Your task to perform on an android device: Open settings Image 0: 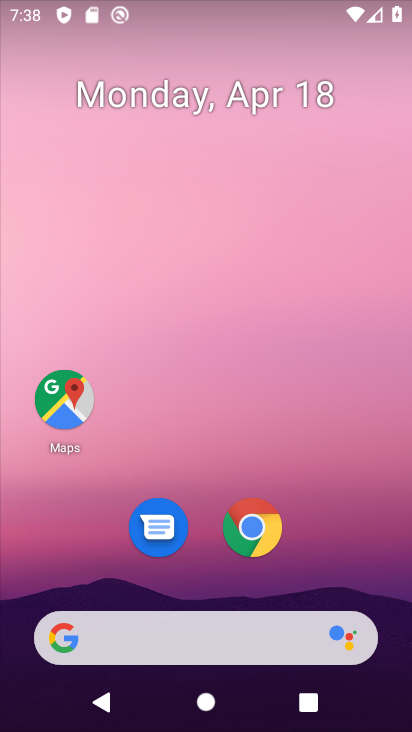
Step 0: drag from (364, 544) to (352, 119)
Your task to perform on an android device: Open settings Image 1: 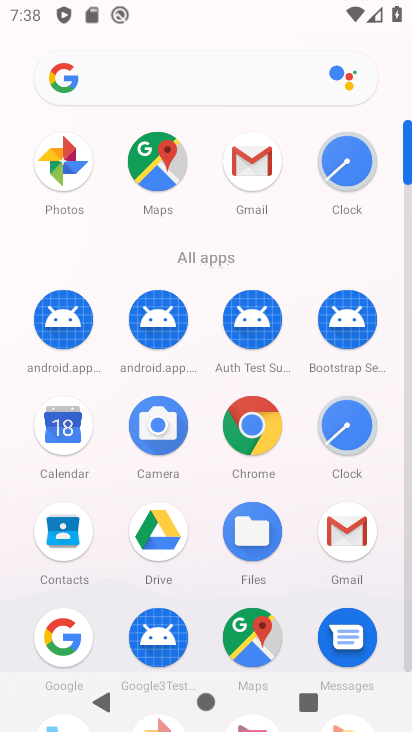
Step 1: drag from (389, 483) to (384, 133)
Your task to perform on an android device: Open settings Image 2: 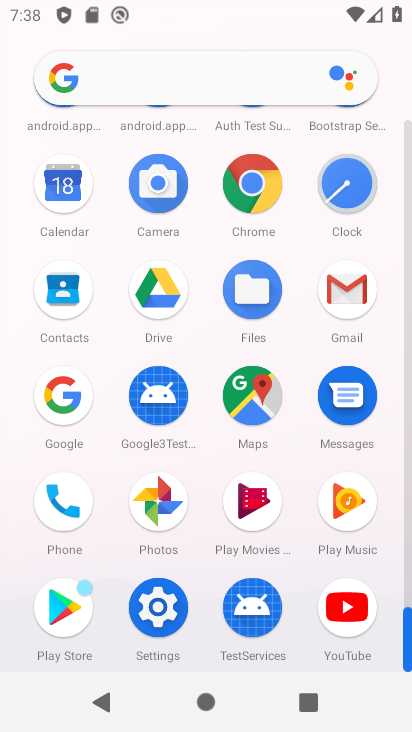
Step 2: click (170, 591)
Your task to perform on an android device: Open settings Image 3: 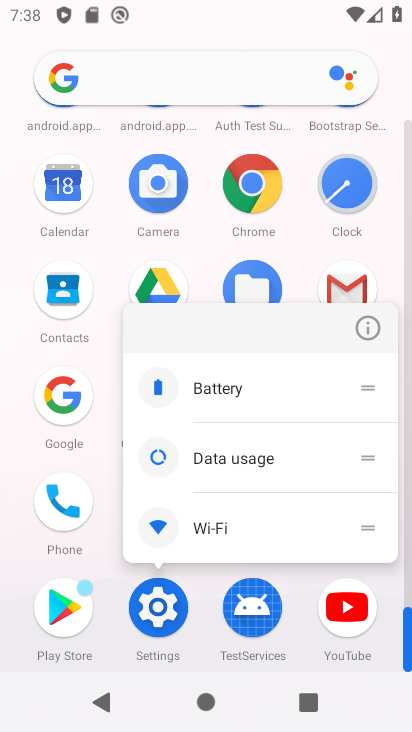
Step 3: click (176, 595)
Your task to perform on an android device: Open settings Image 4: 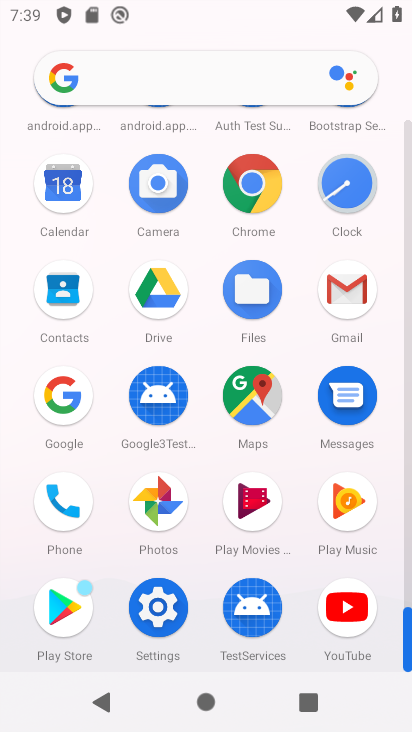
Step 4: click (170, 599)
Your task to perform on an android device: Open settings Image 5: 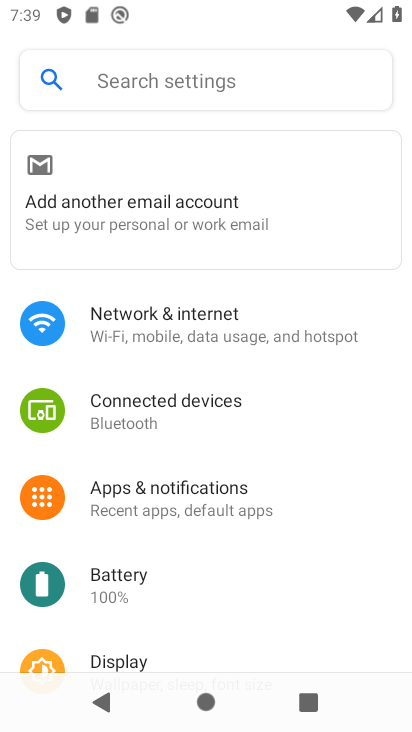
Step 5: task complete